Your task to perform on an android device: Go to accessibility settings Image 0: 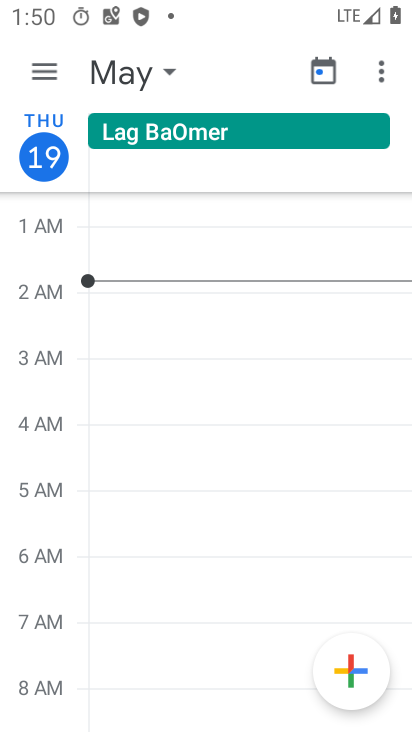
Step 0: press back button
Your task to perform on an android device: Go to accessibility settings Image 1: 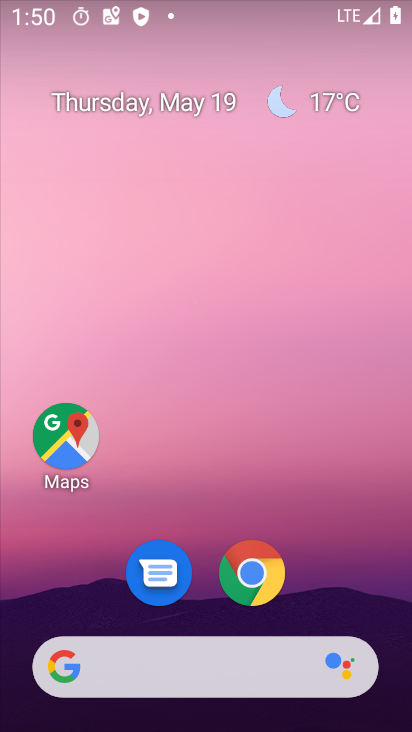
Step 1: drag from (195, 571) to (300, 33)
Your task to perform on an android device: Go to accessibility settings Image 2: 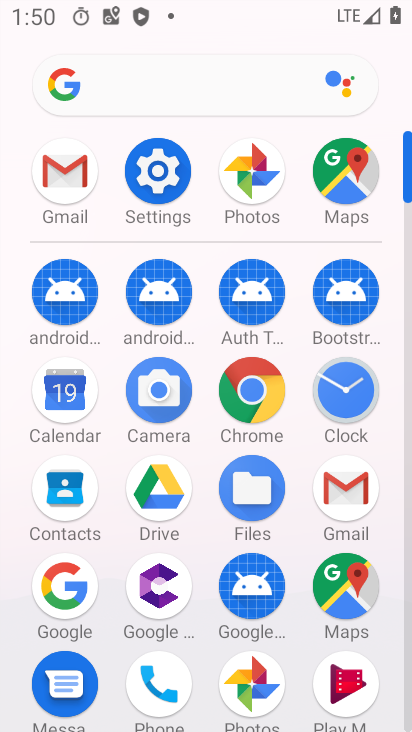
Step 2: click (163, 175)
Your task to perform on an android device: Go to accessibility settings Image 3: 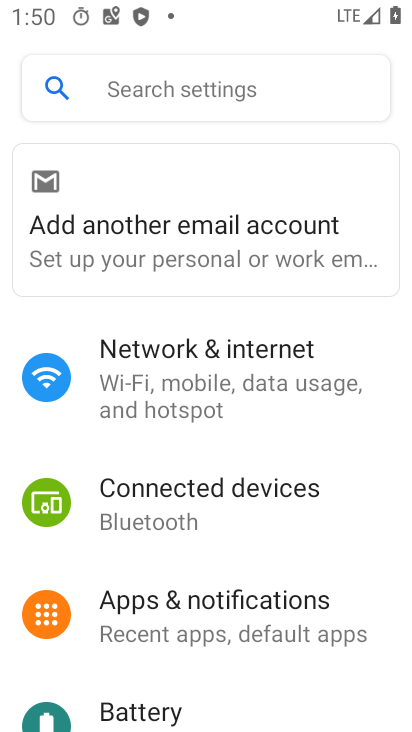
Step 3: drag from (181, 554) to (282, 119)
Your task to perform on an android device: Go to accessibility settings Image 4: 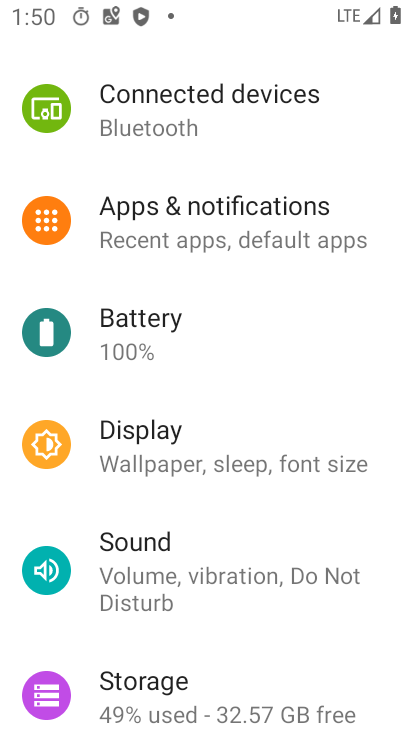
Step 4: drag from (174, 598) to (299, 65)
Your task to perform on an android device: Go to accessibility settings Image 5: 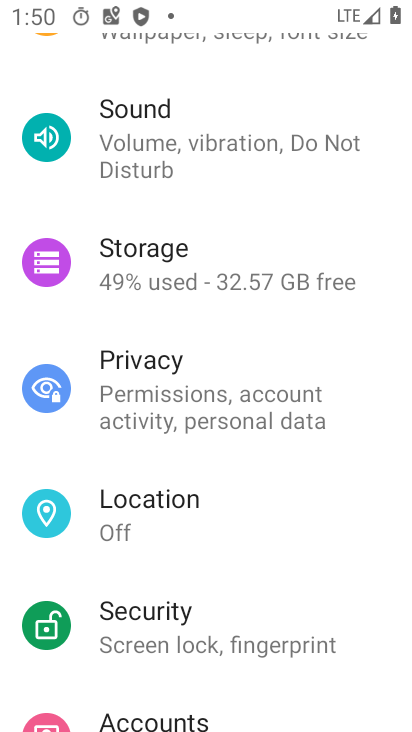
Step 5: drag from (168, 624) to (307, 19)
Your task to perform on an android device: Go to accessibility settings Image 6: 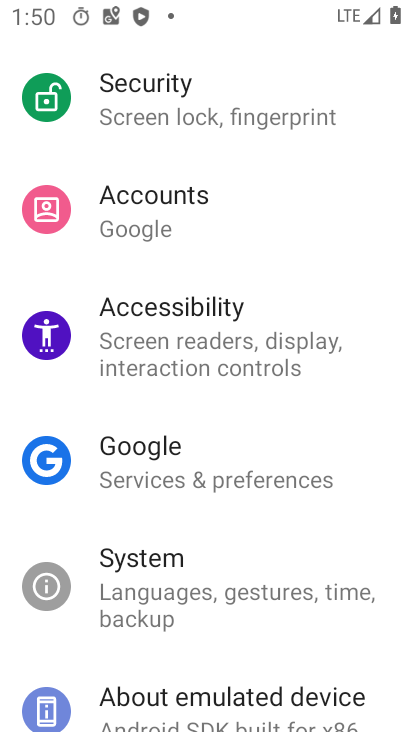
Step 6: click (142, 334)
Your task to perform on an android device: Go to accessibility settings Image 7: 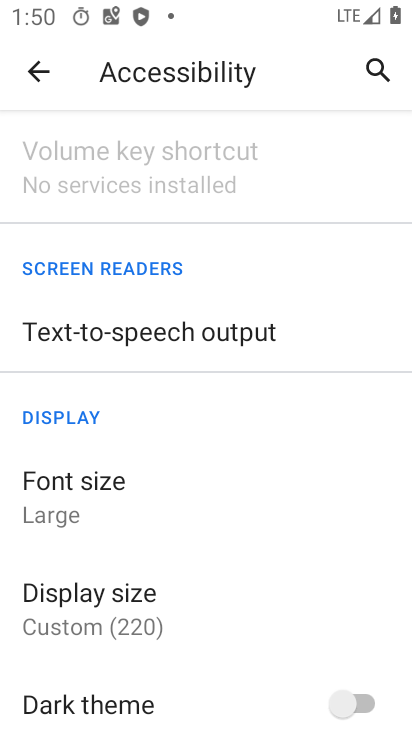
Step 7: task complete